Your task to perform on an android device: turn off javascript in the chrome app Image 0: 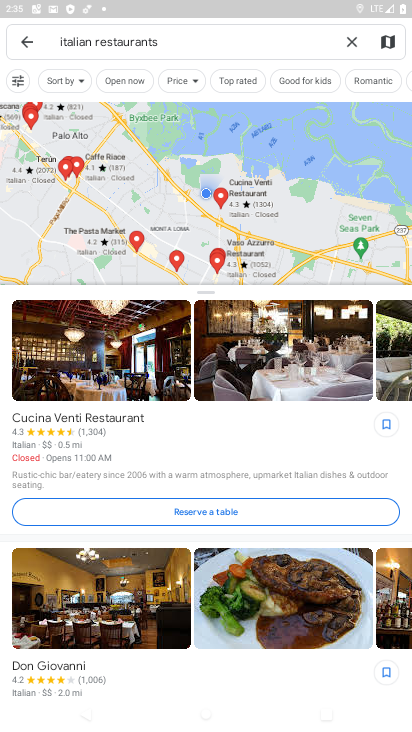
Step 0: click (342, 46)
Your task to perform on an android device: turn off javascript in the chrome app Image 1: 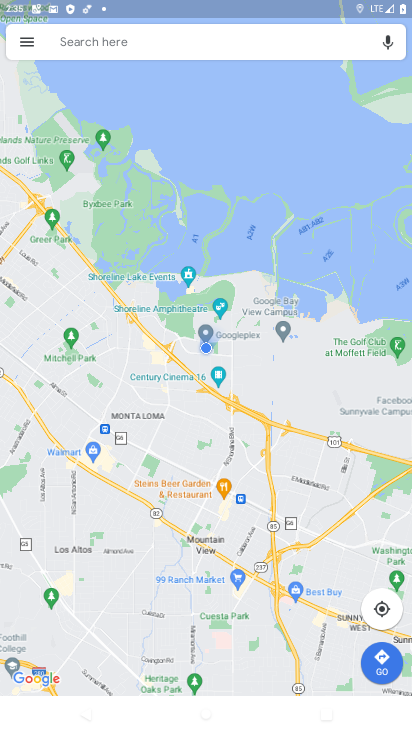
Step 1: press home button
Your task to perform on an android device: turn off javascript in the chrome app Image 2: 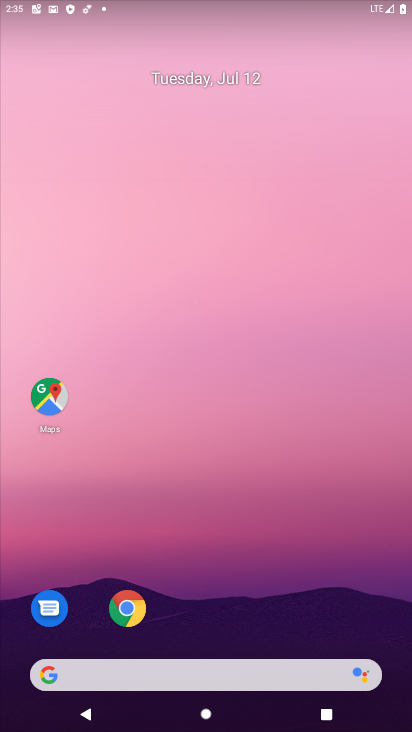
Step 2: click (122, 617)
Your task to perform on an android device: turn off javascript in the chrome app Image 3: 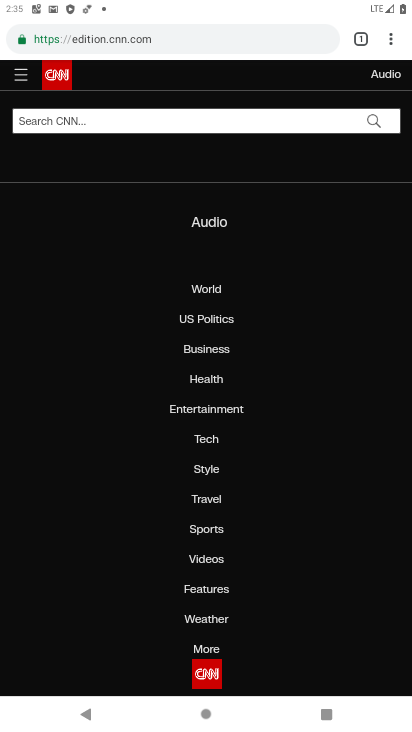
Step 3: click (389, 40)
Your task to perform on an android device: turn off javascript in the chrome app Image 4: 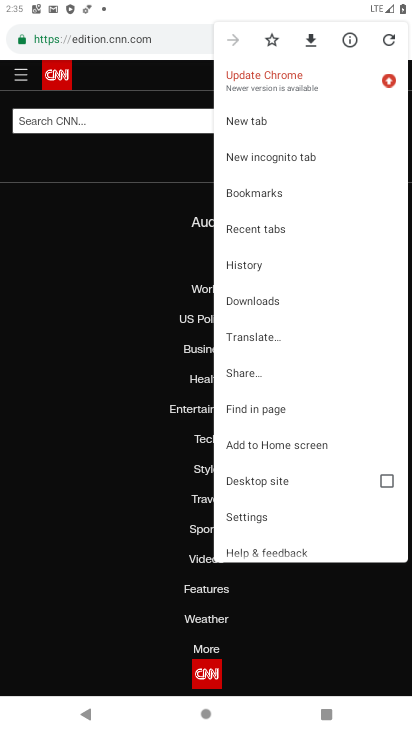
Step 4: click (228, 516)
Your task to perform on an android device: turn off javascript in the chrome app Image 5: 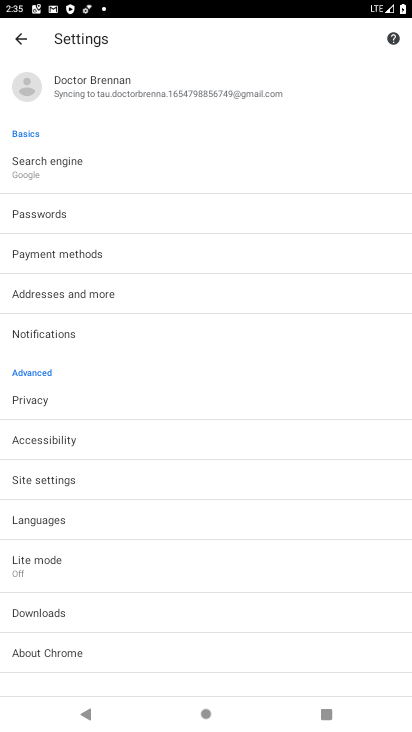
Step 5: click (52, 477)
Your task to perform on an android device: turn off javascript in the chrome app Image 6: 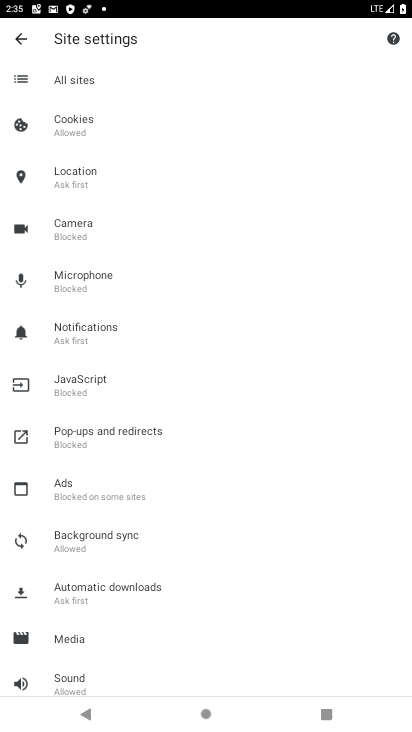
Step 6: click (68, 385)
Your task to perform on an android device: turn off javascript in the chrome app Image 7: 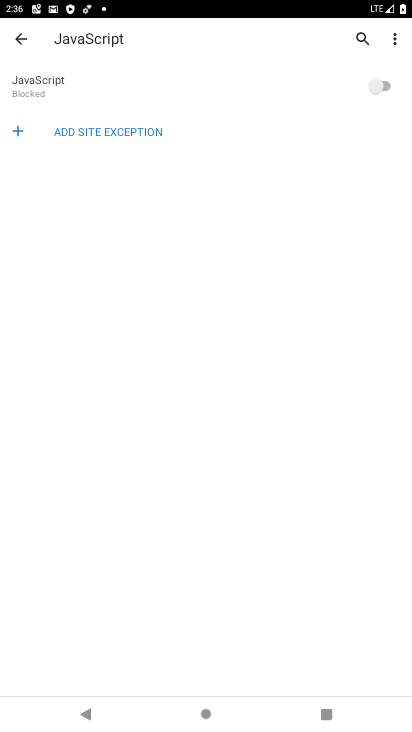
Step 7: task complete